Your task to perform on an android device: Go to privacy settings Image 0: 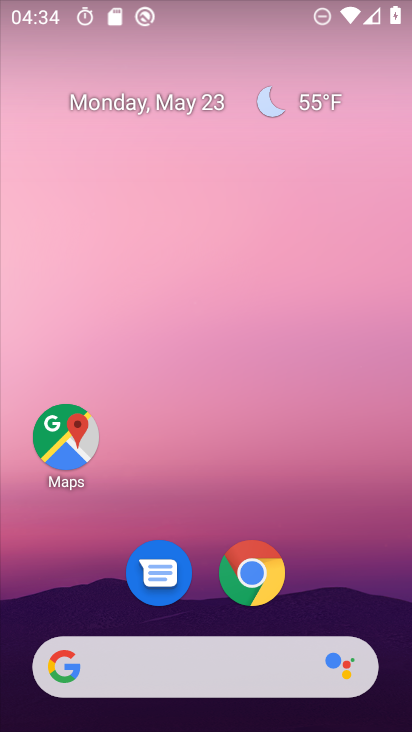
Step 0: drag from (336, 585) to (225, 43)
Your task to perform on an android device: Go to privacy settings Image 1: 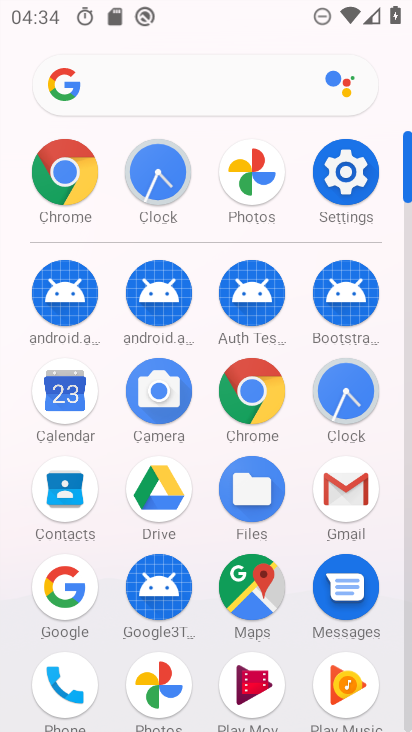
Step 1: click (354, 158)
Your task to perform on an android device: Go to privacy settings Image 2: 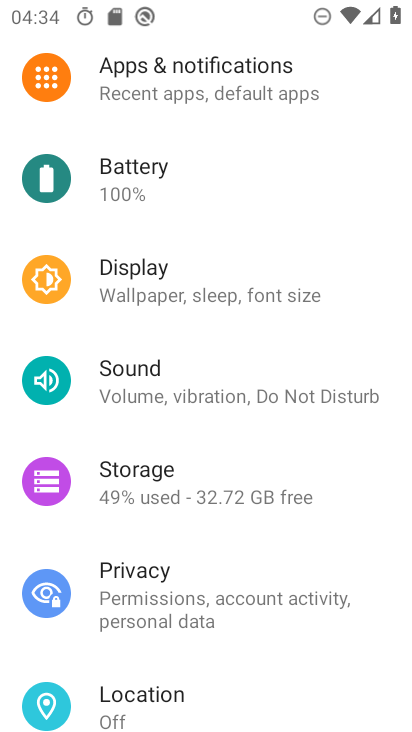
Step 2: click (202, 591)
Your task to perform on an android device: Go to privacy settings Image 3: 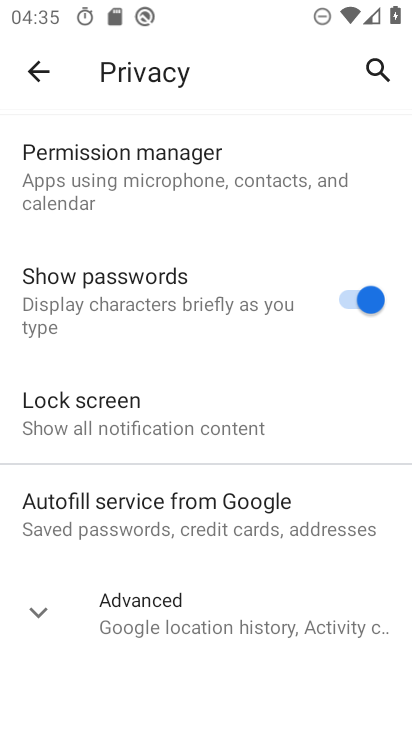
Step 3: task complete